Your task to perform on an android device: change the clock display to digital Image 0: 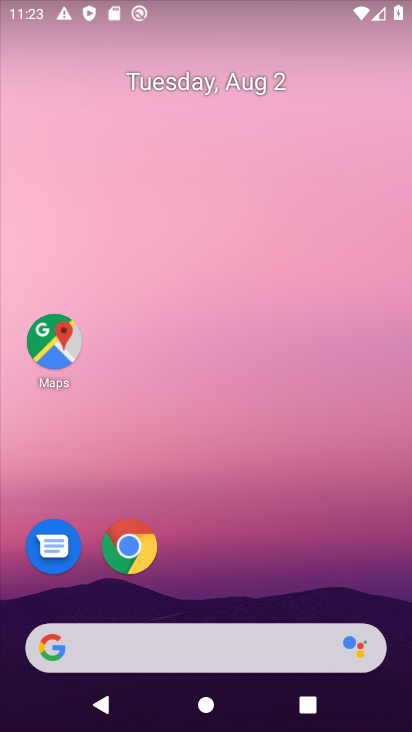
Step 0: drag from (205, 560) to (179, 134)
Your task to perform on an android device: change the clock display to digital Image 1: 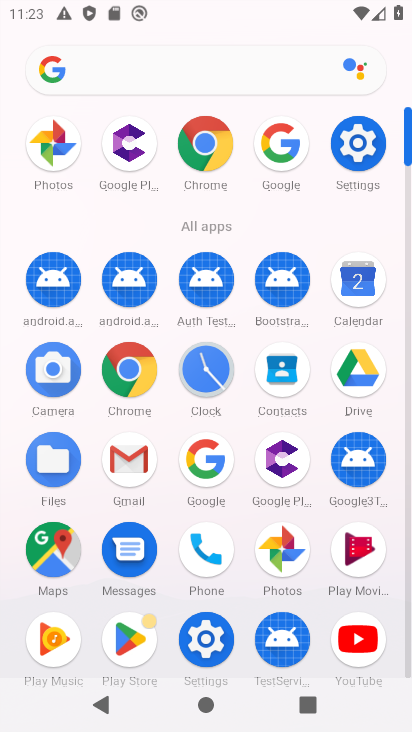
Step 1: click (204, 368)
Your task to perform on an android device: change the clock display to digital Image 2: 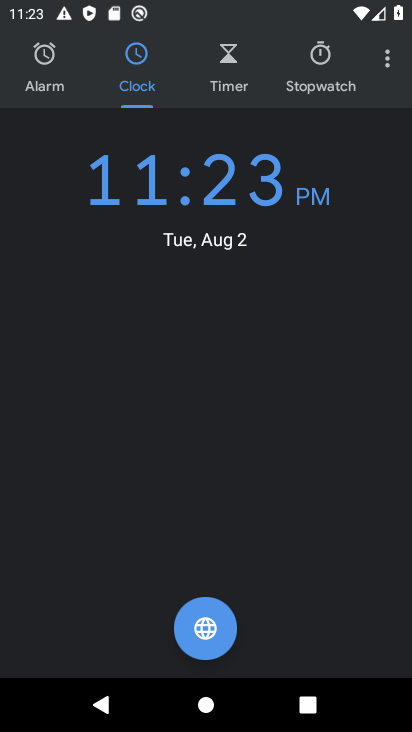
Step 2: click (388, 68)
Your task to perform on an android device: change the clock display to digital Image 3: 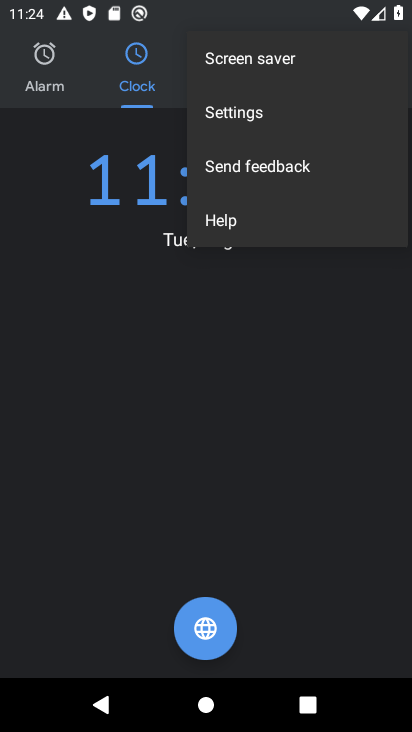
Step 3: click (238, 118)
Your task to perform on an android device: change the clock display to digital Image 4: 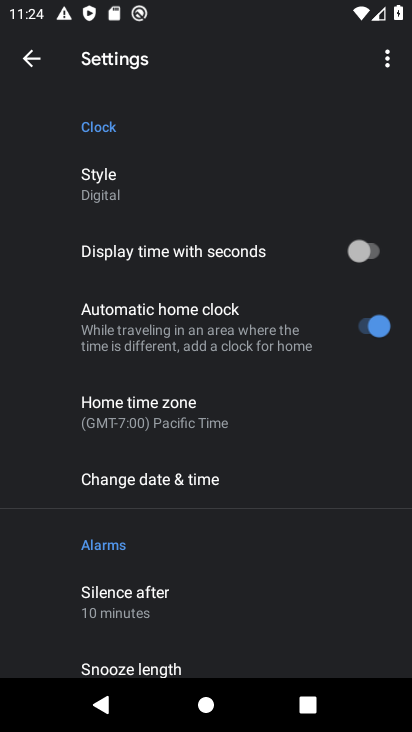
Step 4: click (140, 185)
Your task to perform on an android device: change the clock display to digital Image 5: 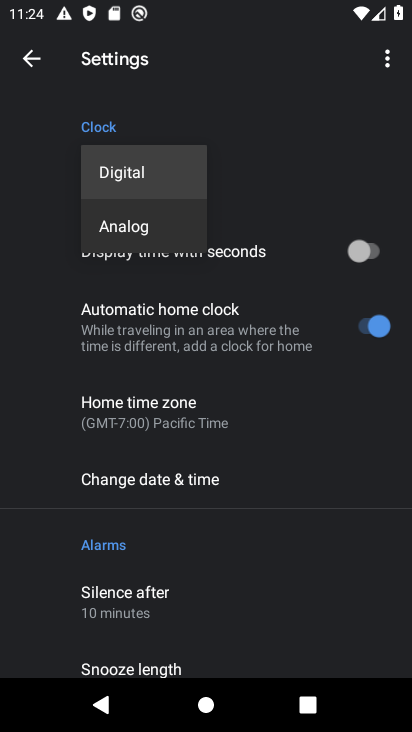
Step 5: click (140, 222)
Your task to perform on an android device: change the clock display to digital Image 6: 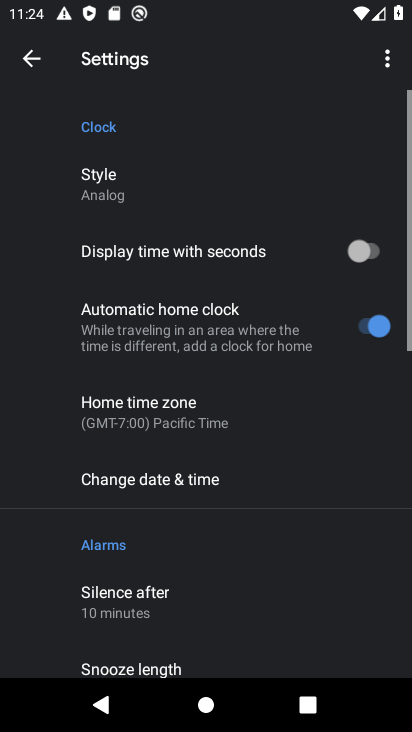
Step 6: click (123, 173)
Your task to perform on an android device: change the clock display to digital Image 7: 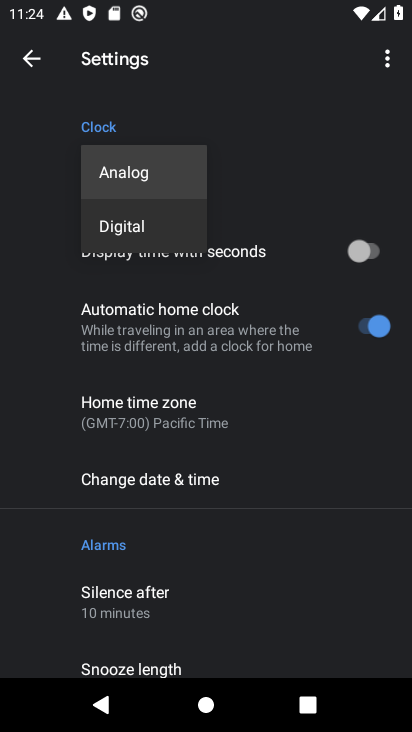
Step 7: click (123, 173)
Your task to perform on an android device: change the clock display to digital Image 8: 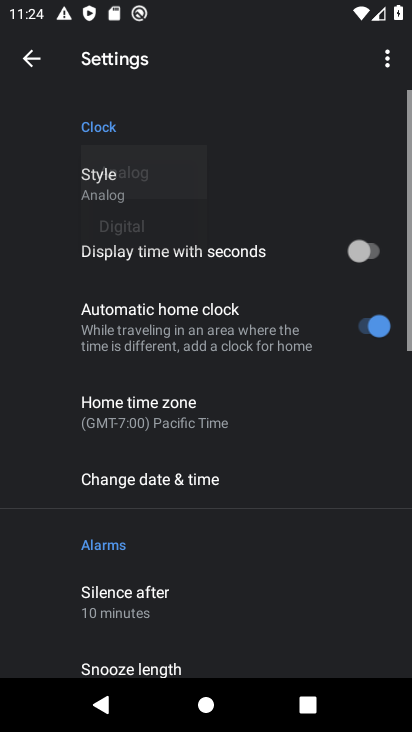
Step 8: click (139, 243)
Your task to perform on an android device: change the clock display to digital Image 9: 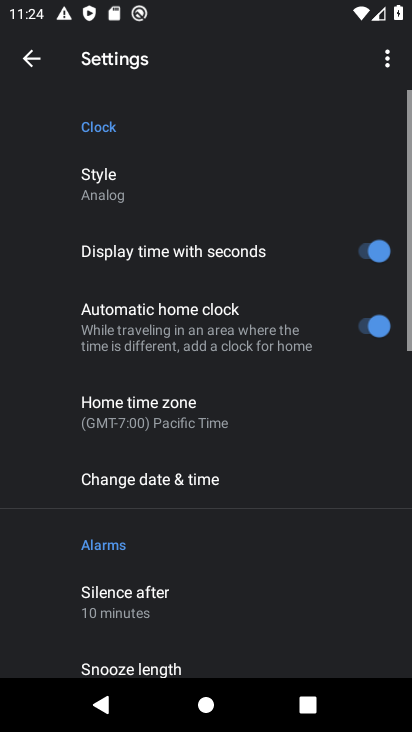
Step 9: click (122, 179)
Your task to perform on an android device: change the clock display to digital Image 10: 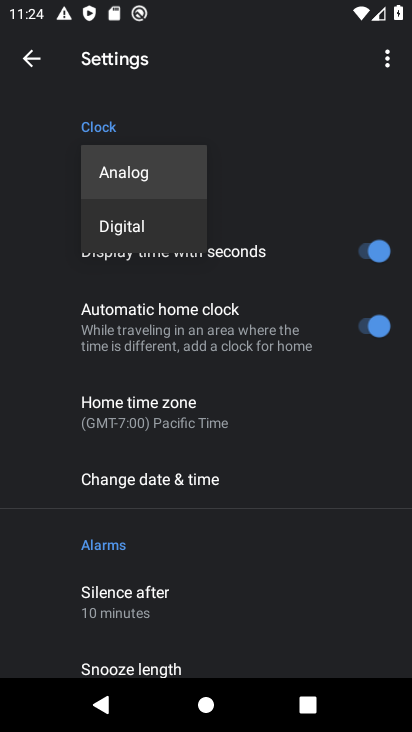
Step 10: click (122, 226)
Your task to perform on an android device: change the clock display to digital Image 11: 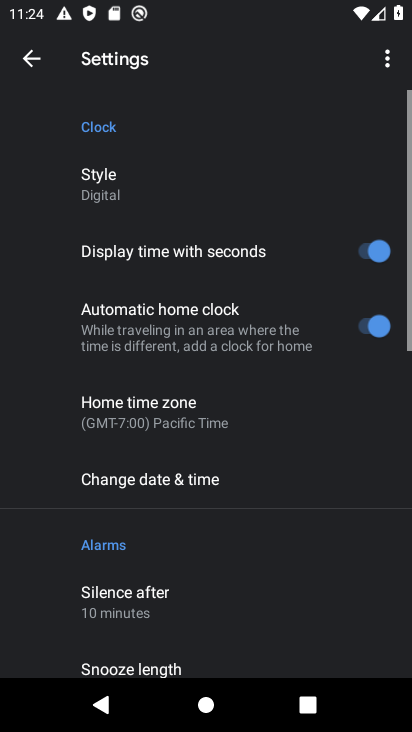
Step 11: task complete